Your task to perform on an android device: Search for "logitech g502" on amazon, select the first entry, add it to the cart, then select checkout. Image 0: 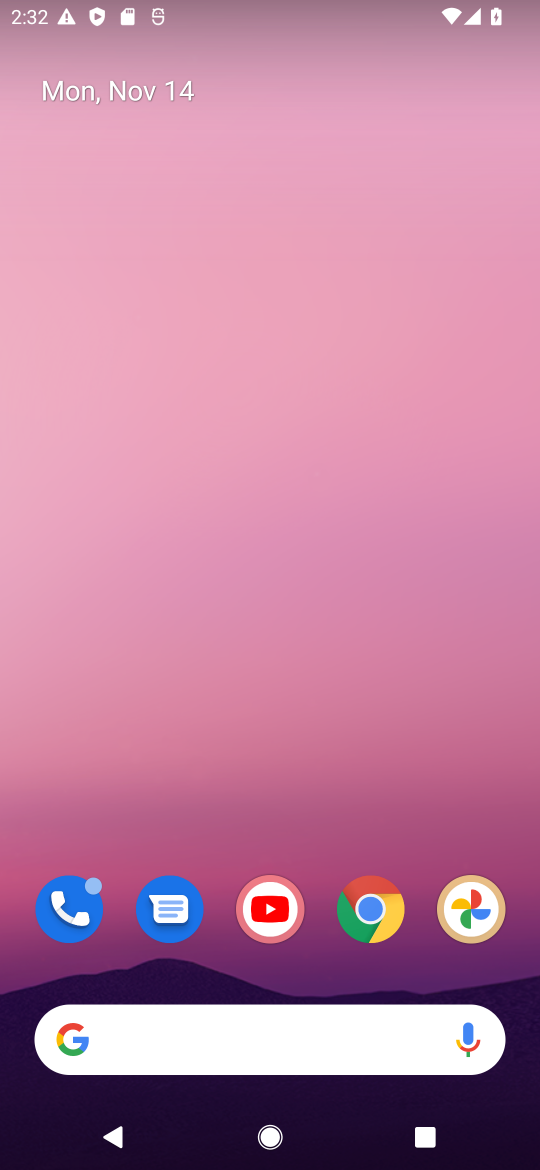
Step 0: drag from (329, 996) to (309, 197)
Your task to perform on an android device: Search for "logitech g502" on amazon, select the first entry, add it to the cart, then select checkout. Image 1: 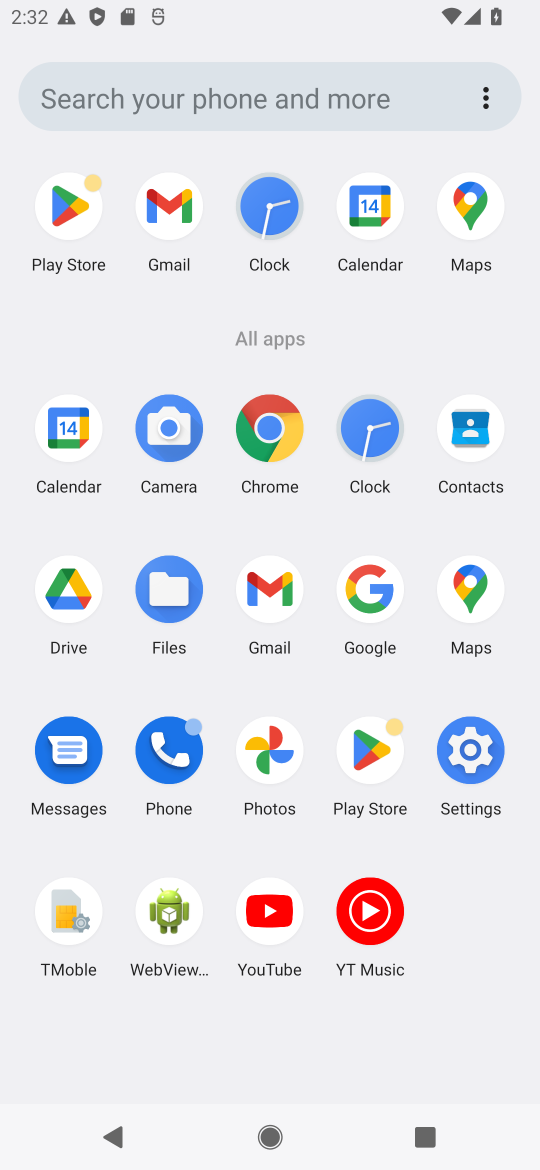
Step 1: click (262, 435)
Your task to perform on an android device: Search for "logitech g502" on amazon, select the first entry, add it to the cart, then select checkout. Image 2: 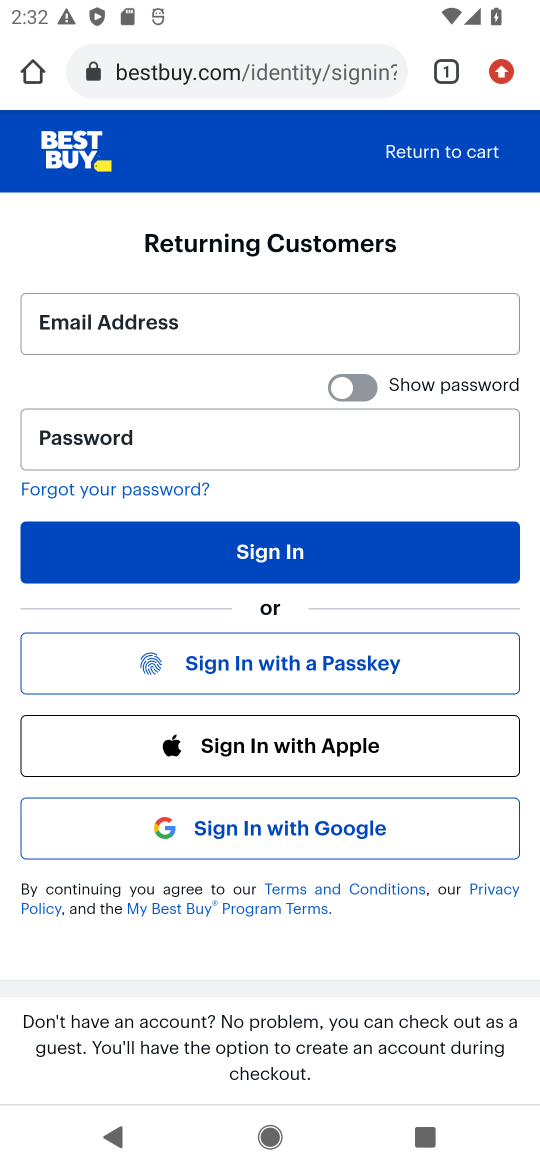
Step 2: click (265, 67)
Your task to perform on an android device: Search for "logitech g502" on amazon, select the first entry, add it to the cart, then select checkout. Image 3: 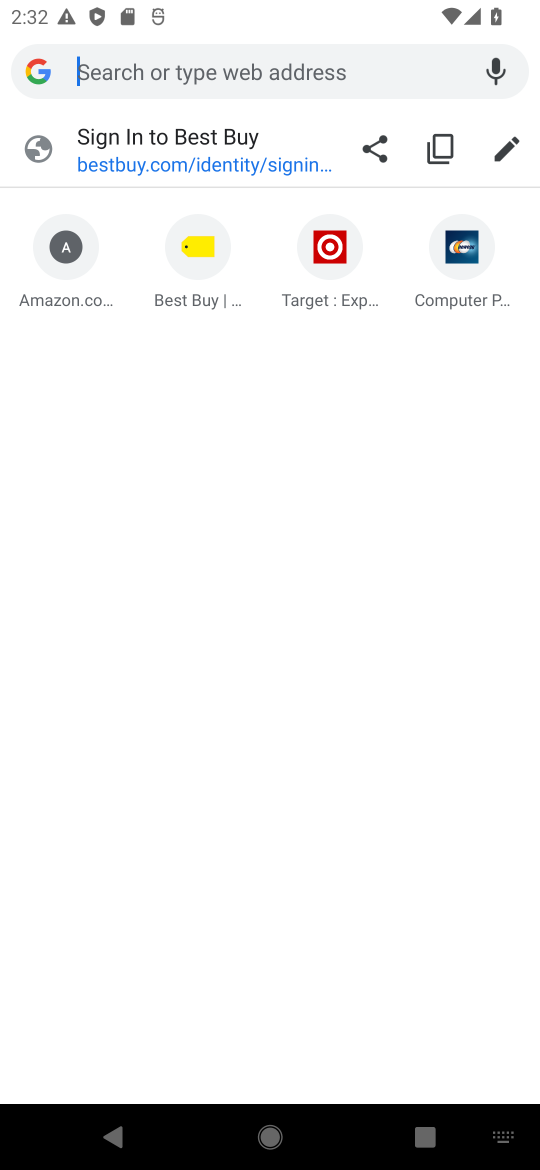
Step 3: type "amazon.com"
Your task to perform on an android device: Search for "logitech g502" on amazon, select the first entry, add it to the cart, then select checkout. Image 4: 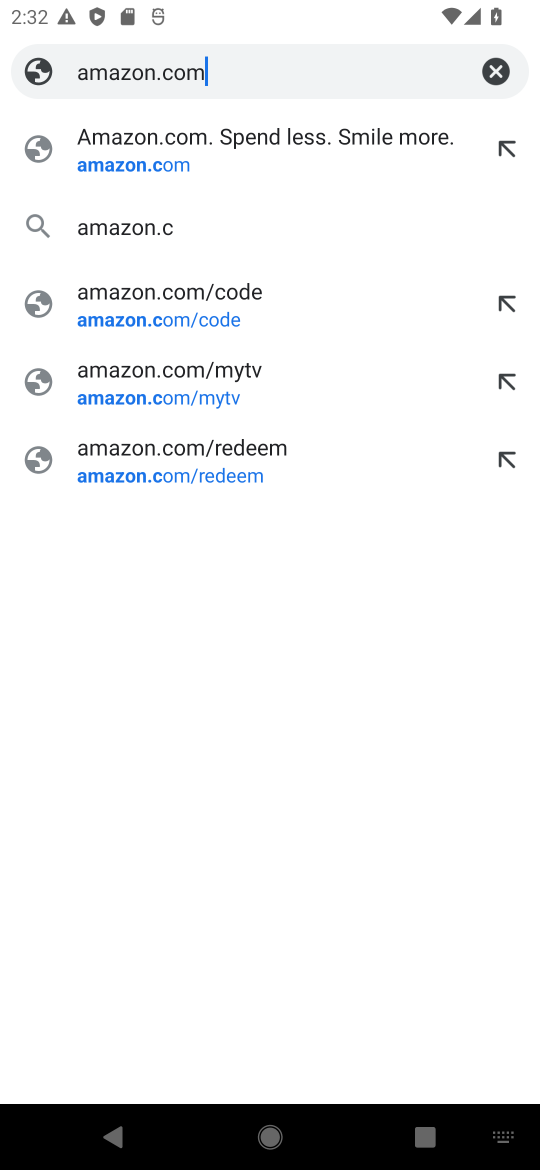
Step 4: press enter
Your task to perform on an android device: Search for "logitech g502" on amazon, select the first entry, add it to the cart, then select checkout. Image 5: 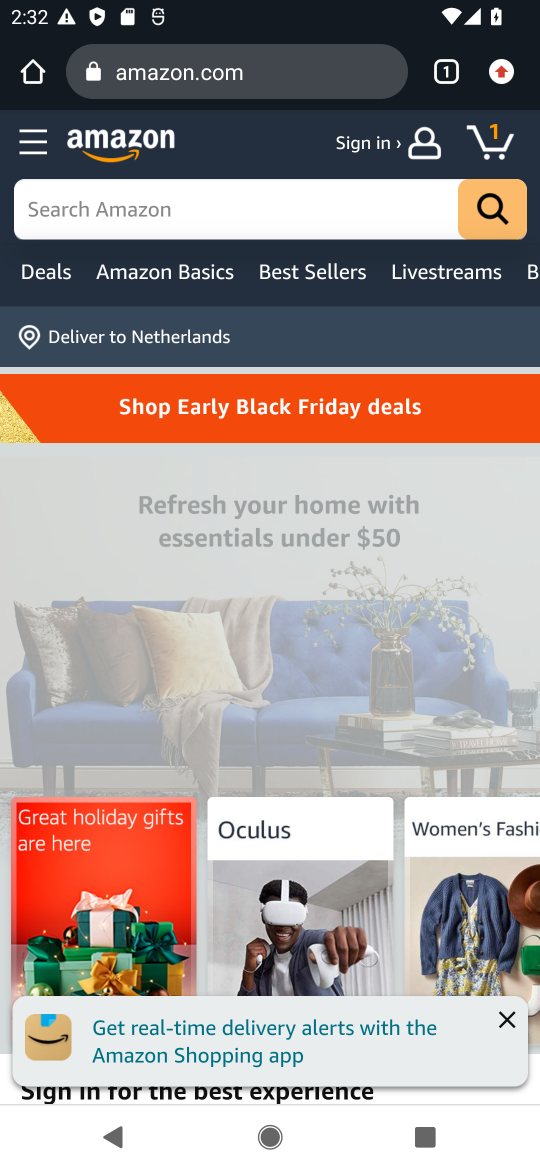
Step 5: click (298, 225)
Your task to perform on an android device: Search for "logitech g502" on amazon, select the first entry, add it to the cart, then select checkout. Image 6: 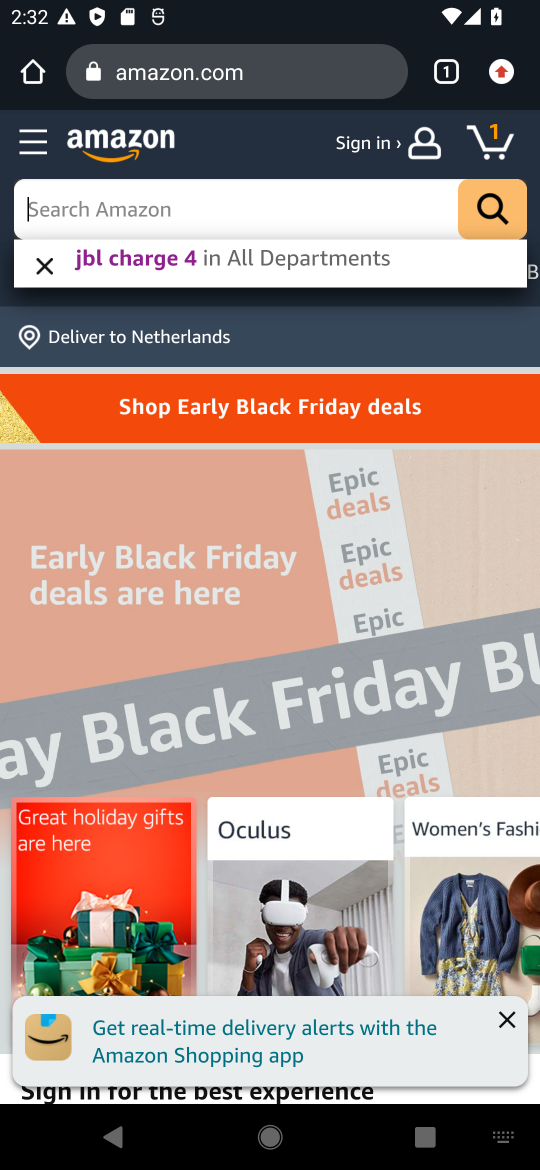
Step 6: type "logitech g502"
Your task to perform on an android device: Search for "logitech g502" on amazon, select the first entry, add it to the cart, then select checkout. Image 7: 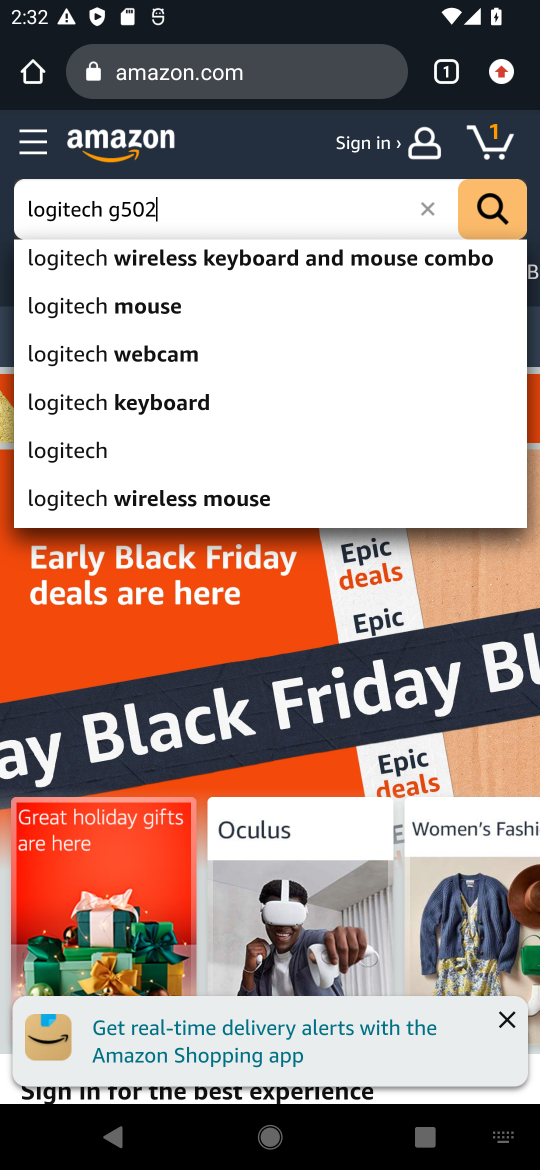
Step 7: press enter
Your task to perform on an android device: Search for "logitech g502" on amazon, select the first entry, add it to the cart, then select checkout. Image 8: 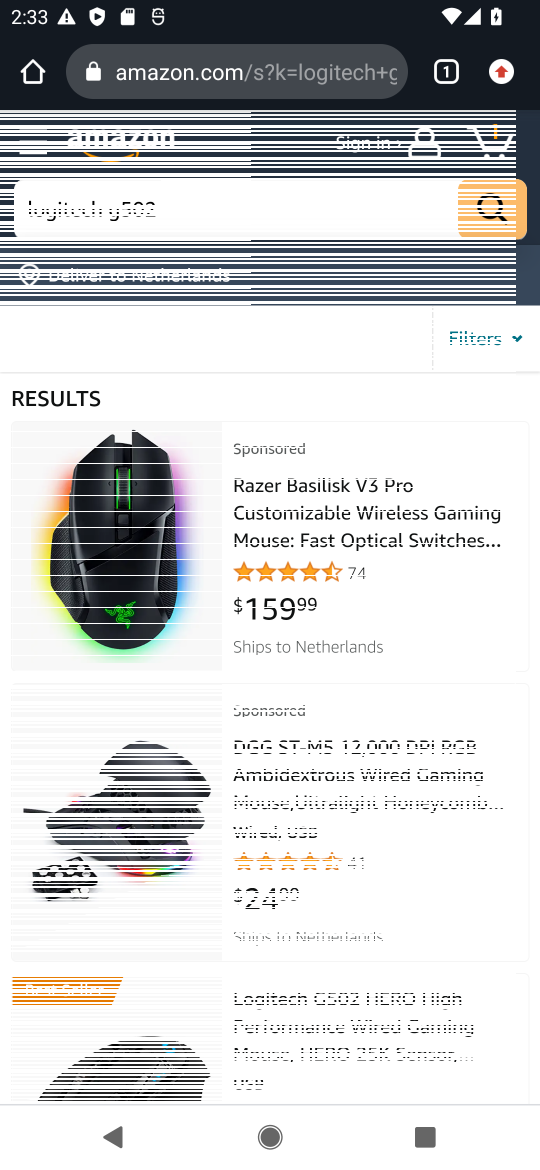
Step 8: drag from (376, 935) to (417, 334)
Your task to perform on an android device: Search for "logitech g502" on amazon, select the first entry, add it to the cart, then select checkout. Image 9: 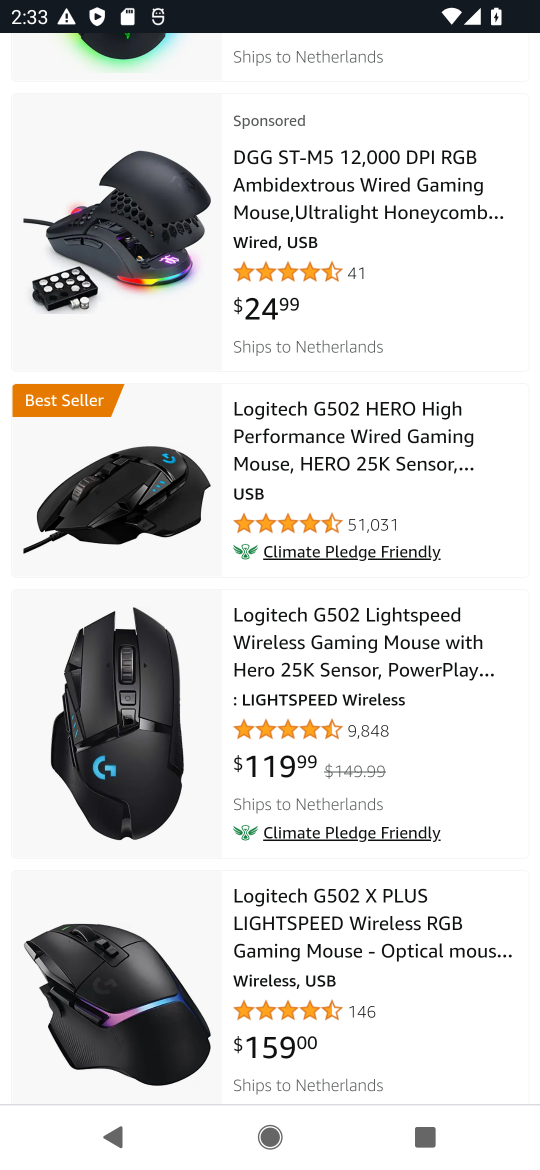
Step 9: click (270, 440)
Your task to perform on an android device: Search for "logitech g502" on amazon, select the first entry, add it to the cart, then select checkout. Image 10: 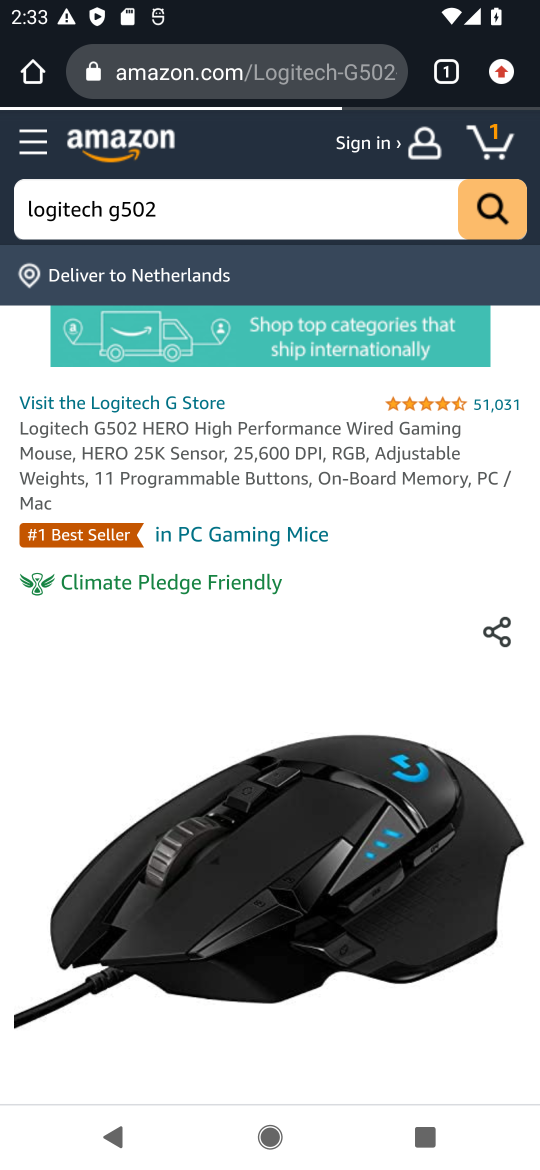
Step 10: task complete